Your task to perform on an android device: all mails in gmail Image 0: 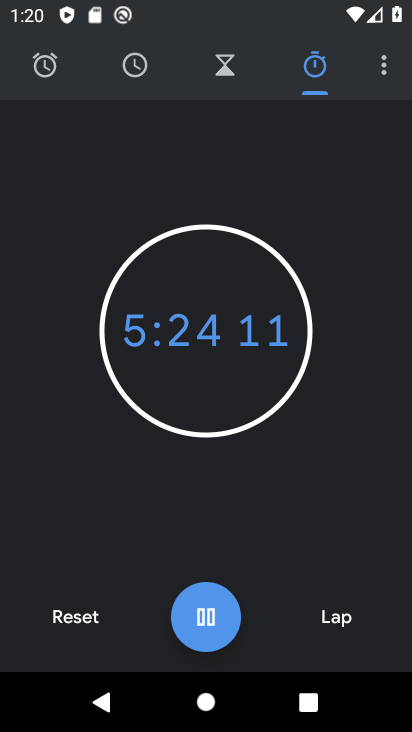
Step 0: press home button
Your task to perform on an android device: all mails in gmail Image 1: 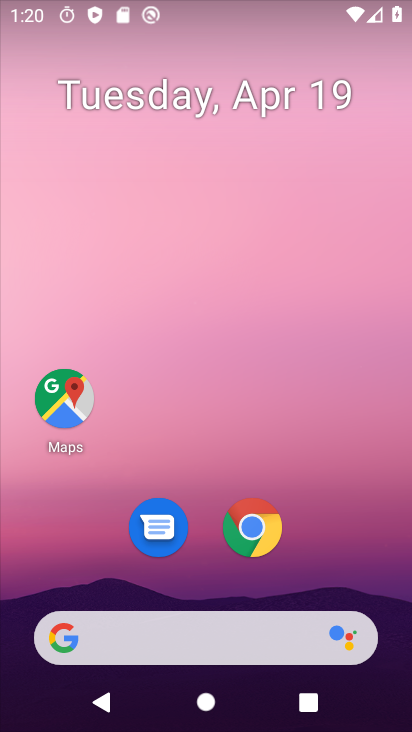
Step 1: drag from (331, 511) to (351, 0)
Your task to perform on an android device: all mails in gmail Image 2: 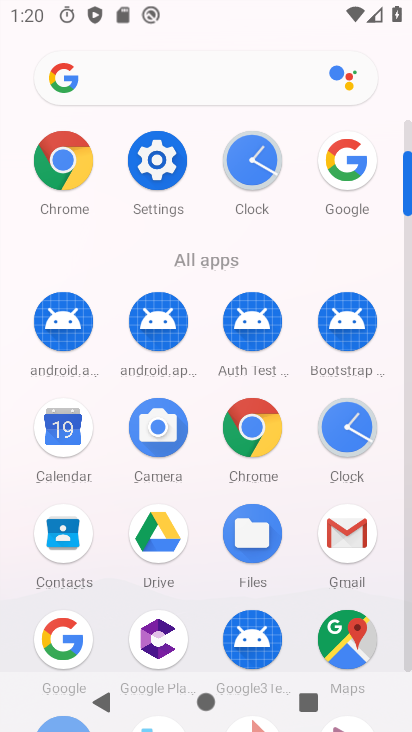
Step 2: click (350, 530)
Your task to perform on an android device: all mails in gmail Image 3: 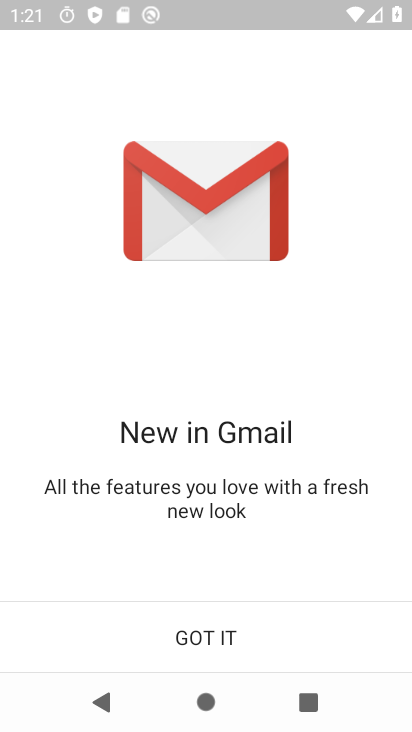
Step 3: click (186, 636)
Your task to perform on an android device: all mails in gmail Image 4: 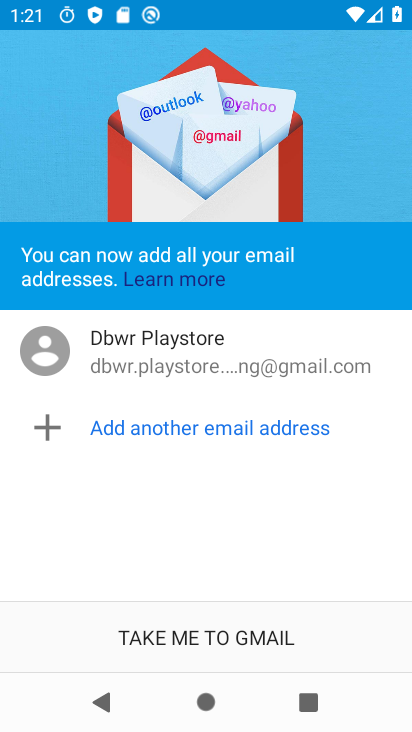
Step 4: click (186, 636)
Your task to perform on an android device: all mails in gmail Image 5: 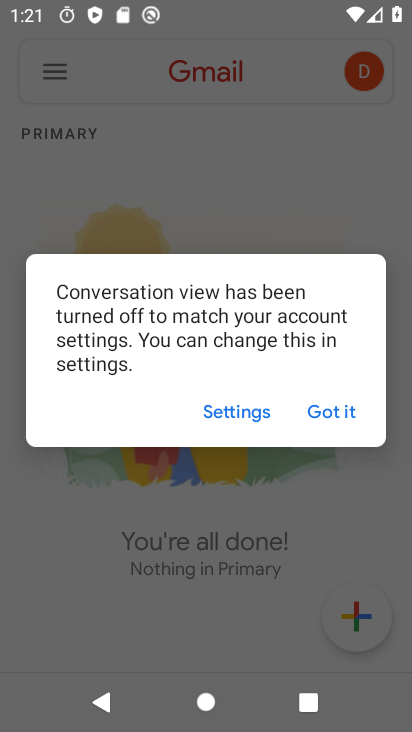
Step 5: click (348, 418)
Your task to perform on an android device: all mails in gmail Image 6: 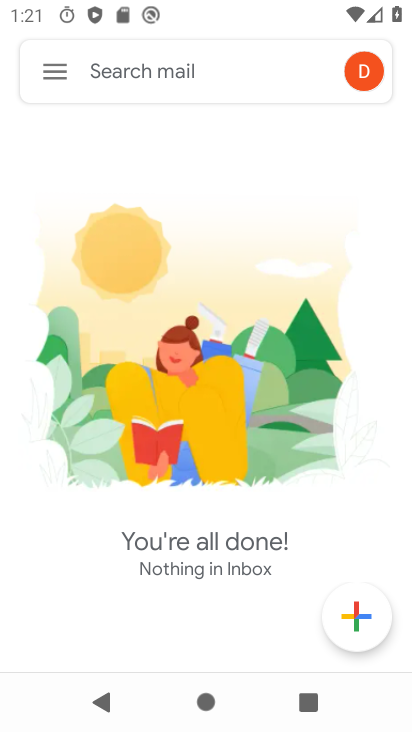
Step 6: click (37, 71)
Your task to perform on an android device: all mails in gmail Image 7: 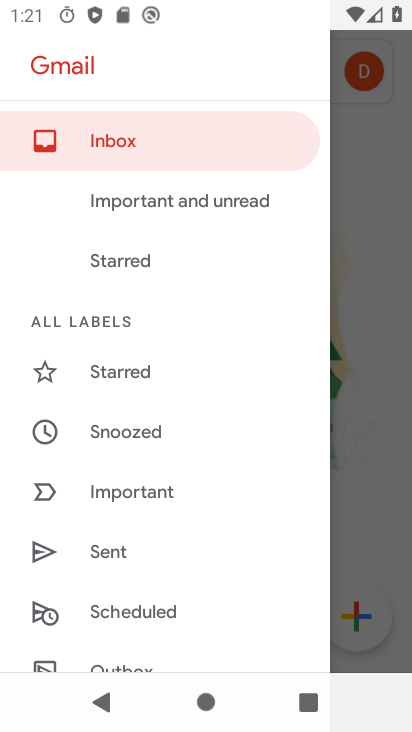
Step 7: drag from (233, 515) to (278, 124)
Your task to perform on an android device: all mails in gmail Image 8: 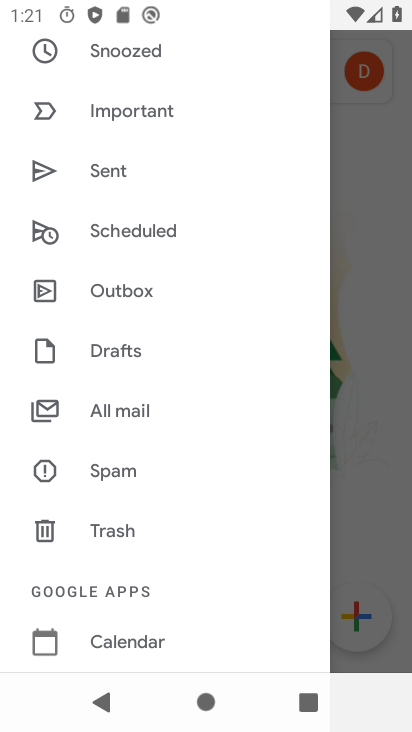
Step 8: drag from (235, 452) to (221, 205)
Your task to perform on an android device: all mails in gmail Image 9: 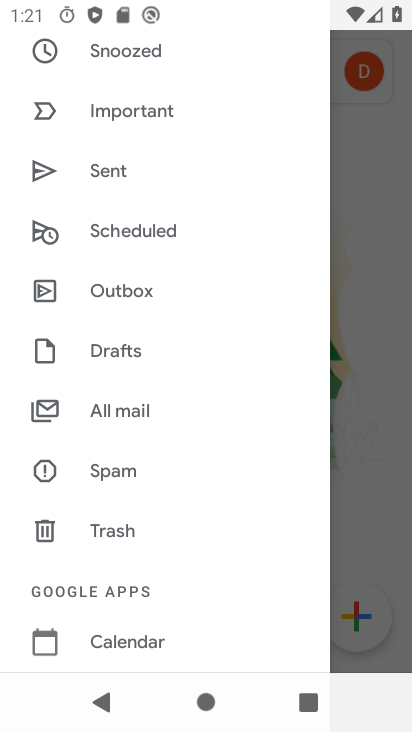
Step 9: drag from (207, 544) to (186, 378)
Your task to perform on an android device: all mails in gmail Image 10: 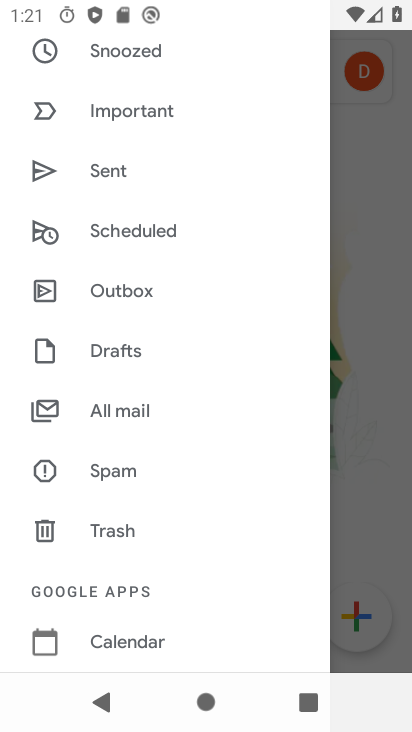
Step 10: click (132, 401)
Your task to perform on an android device: all mails in gmail Image 11: 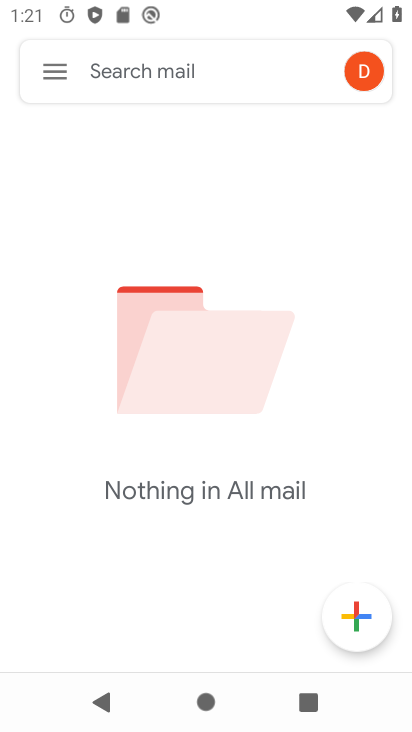
Step 11: task complete